Your task to perform on an android device: Open calendar and show me the second week of next month Image 0: 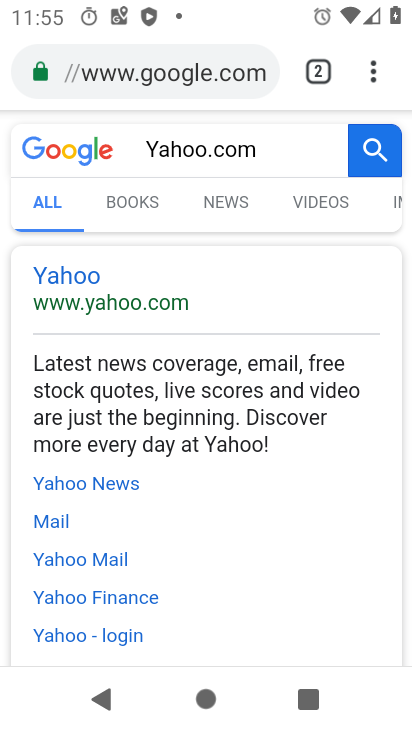
Step 0: press home button
Your task to perform on an android device: Open calendar and show me the second week of next month Image 1: 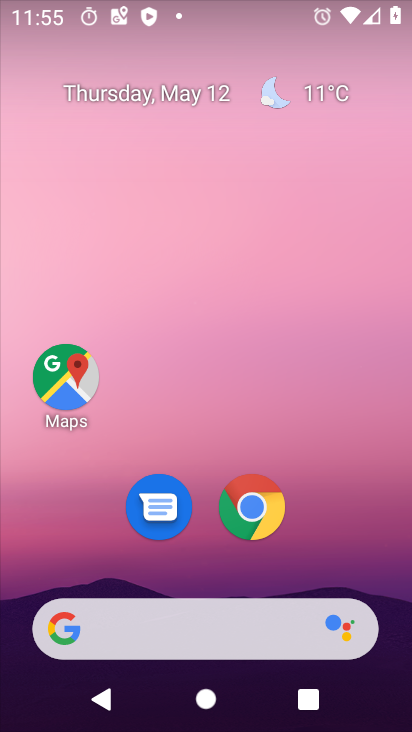
Step 1: drag from (223, 565) to (257, 23)
Your task to perform on an android device: Open calendar and show me the second week of next month Image 2: 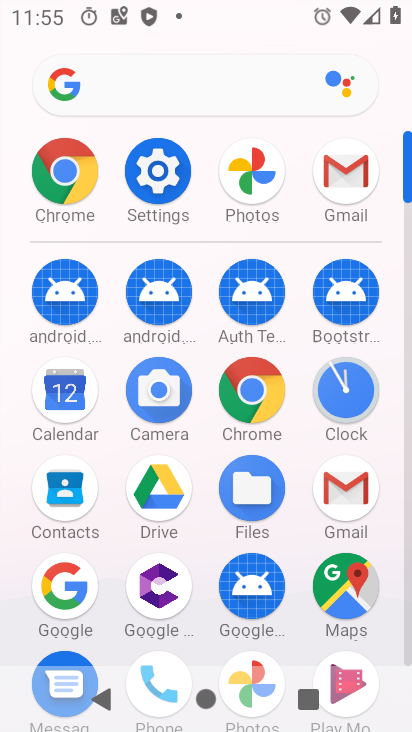
Step 2: click (60, 412)
Your task to perform on an android device: Open calendar and show me the second week of next month Image 3: 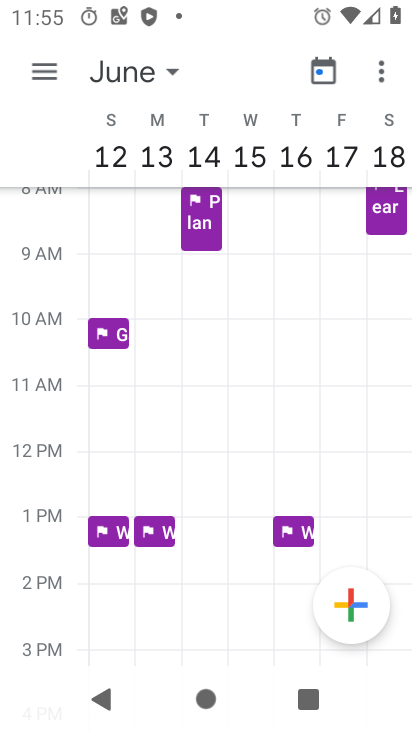
Step 3: task complete